Your task to perform on an android device: Turn off the flashlight Image 0: 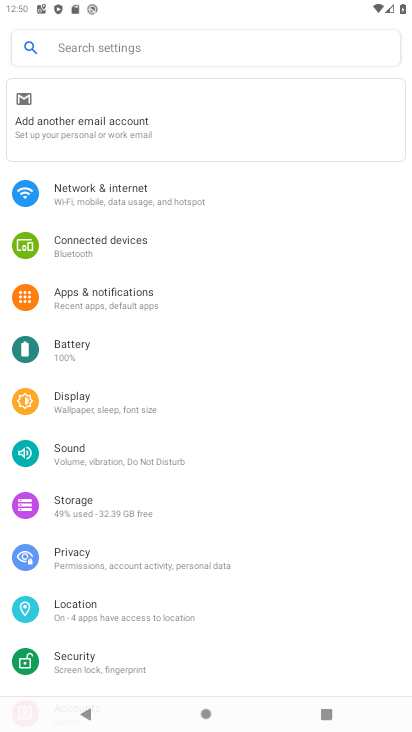
Step 0: press home button
Your task to perform on an android device: Turn off the flashlight Image 1: 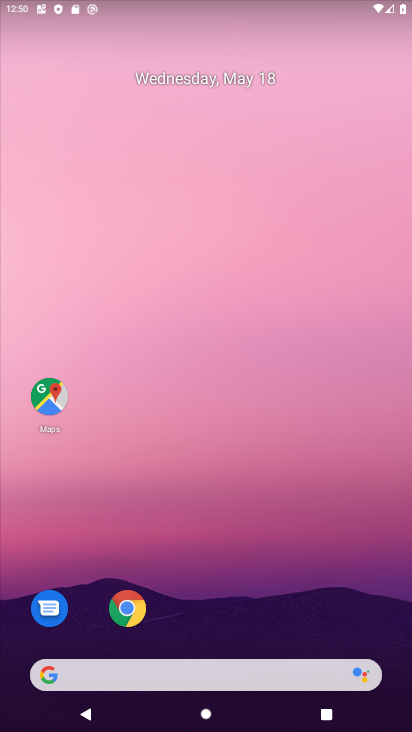
Step 1: task complete